Your task to perform on an android device: Open maps Image 0: 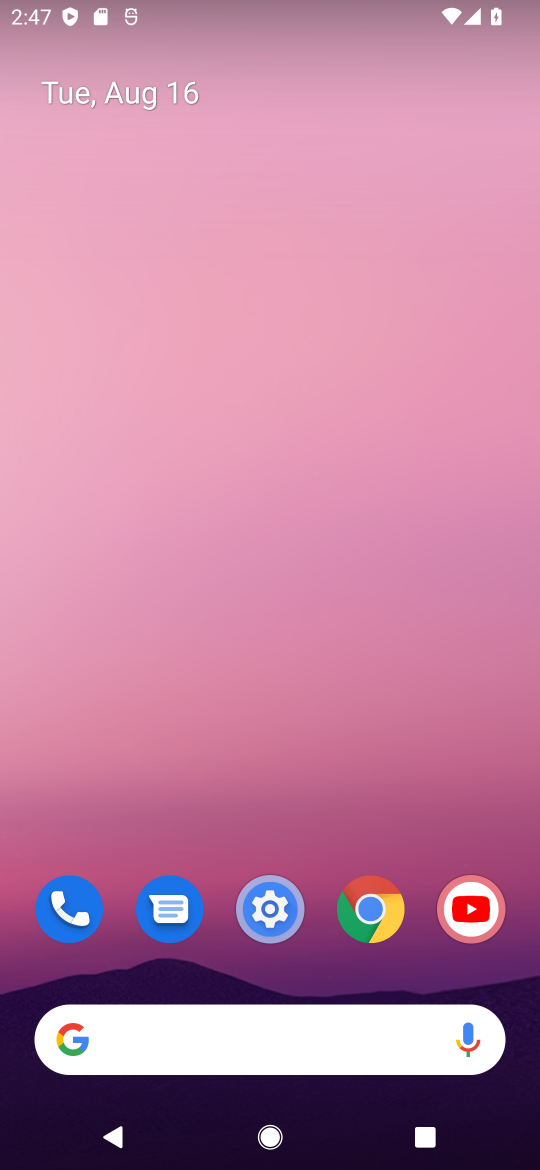
Step 0: press home button
Your task to perform on an android device: Open maps Image 1: 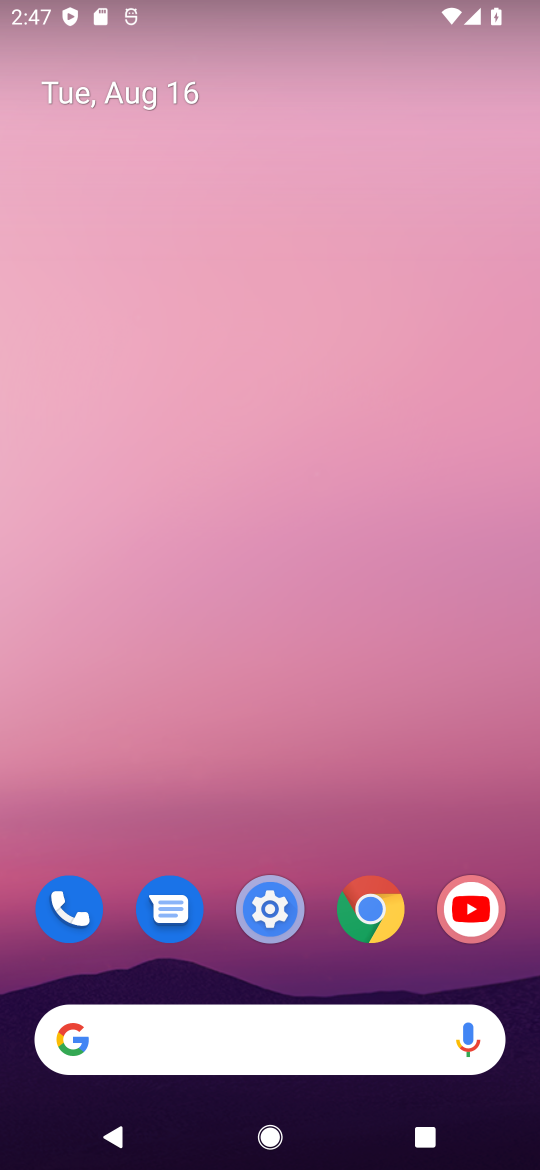
Step 1: drag from (252, 95) to (266, 0)
Your task to perform on an android device: Open maps Image 2: 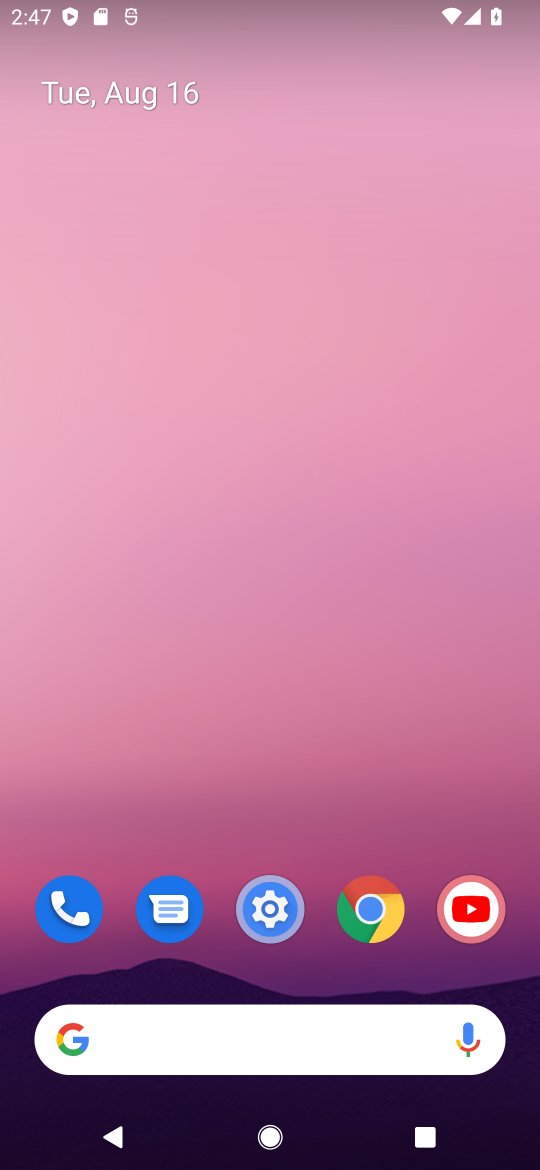
Step 2: click (319, 47)
Your task to perform on an android device: Open maps Image 3: 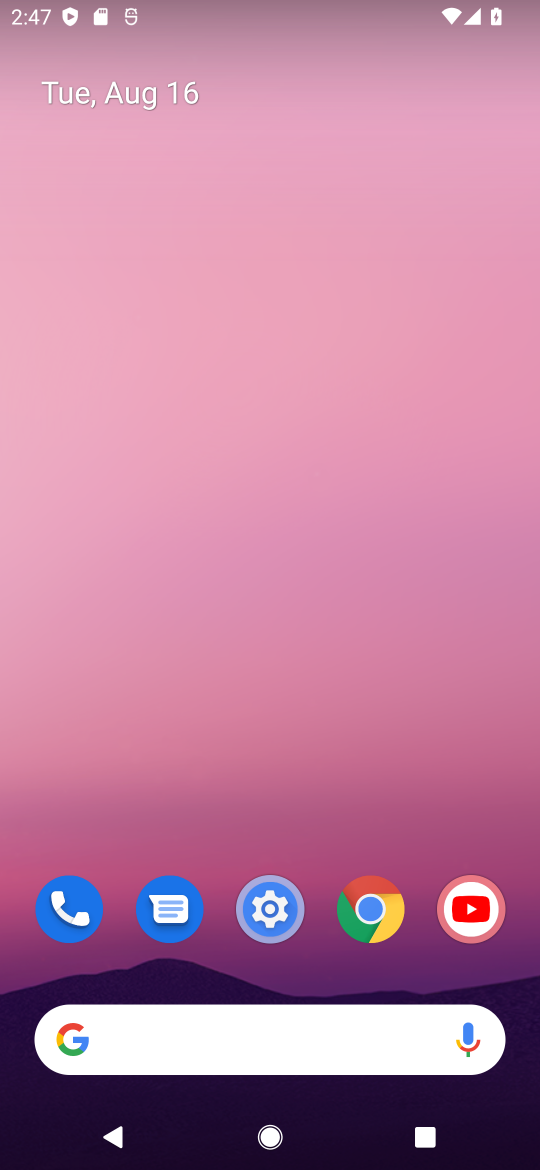
Step 3: drag from (237, 922) to (240, 30)
Your task to perform on an android device: Open maps Image 4: 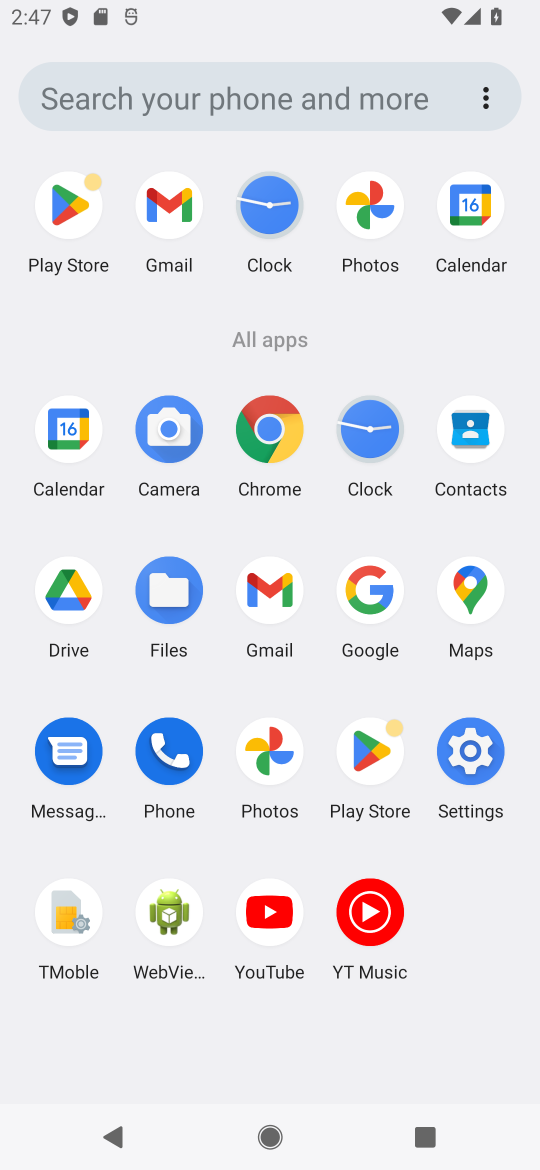
Step 4: click (481, 600)
Your task to perform on an android device: Open maps Image 5: 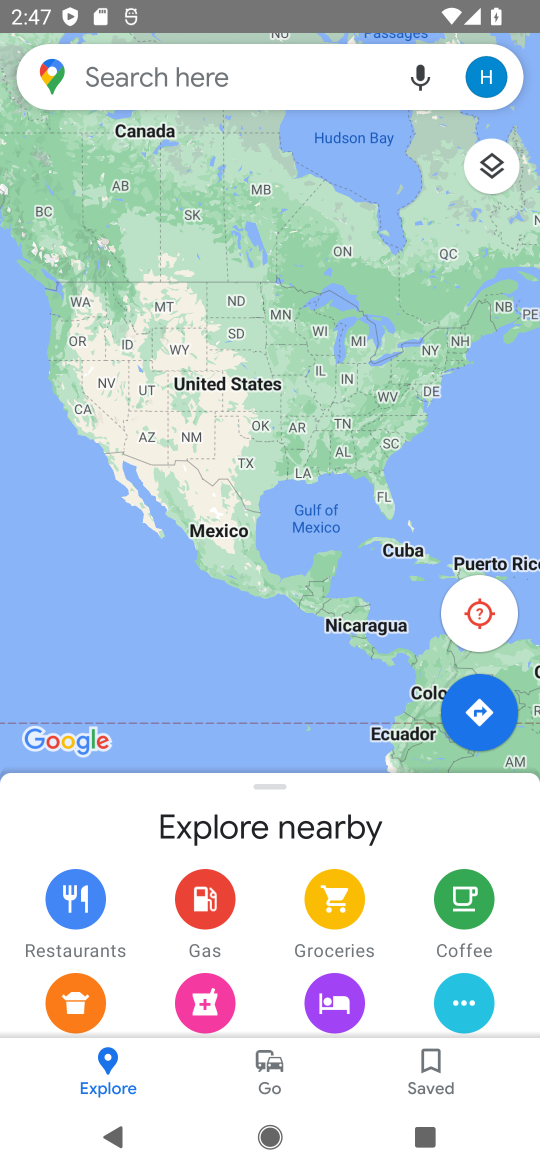
Step 5: task complete